Your task to perform on an android device: snooze an email in the gmail app Image 0: 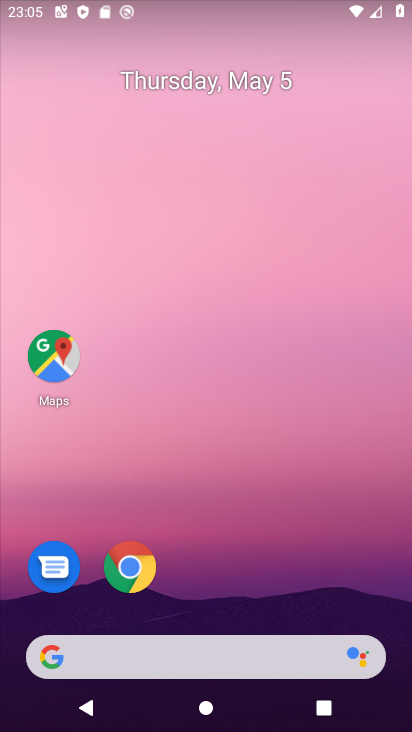
Step 0: drag from (182, 566) to (165, 187)
Your task to perform on an android device: snooze an email in the gmail app Image 1: 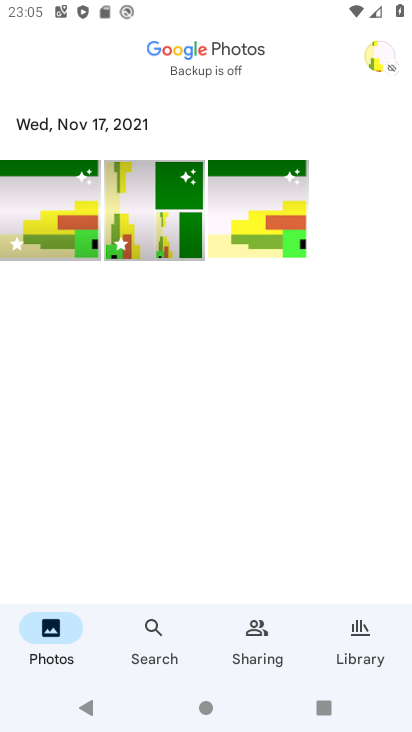
Step 1: press home button
Your task to perform on an android device: snooze an email in the gmail app Image 2: 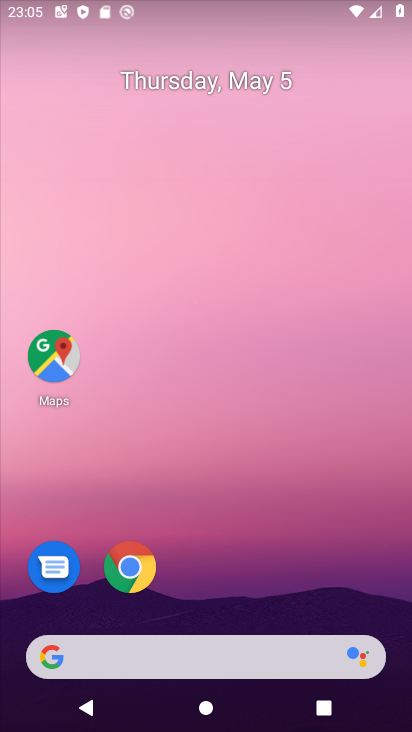
Step 2: drag from (216, 606) to (215, 172)
Your task to perform on an android device: snooze an email in the gmail app Image 3: 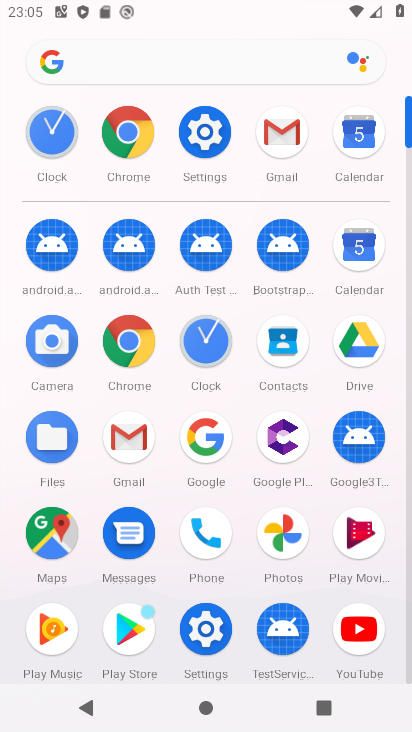
Step 3: click (264, 129)
Your task to perform on an android device: snooze an email in the gmail app Image 4: 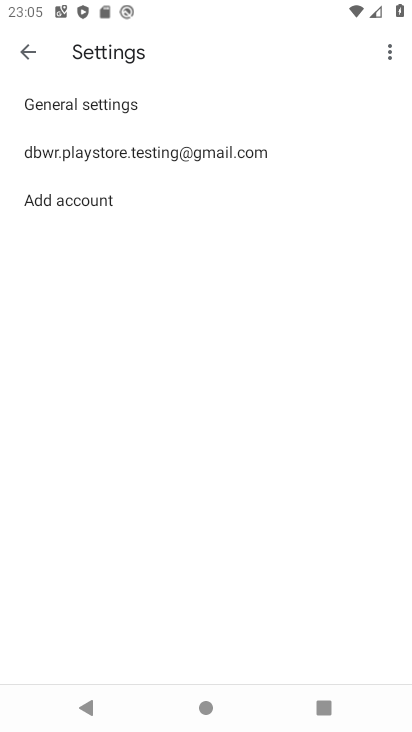
Step 4: click (58, 150)
Your task to perform on an android device: snooze an email in the gmail app Image 5: 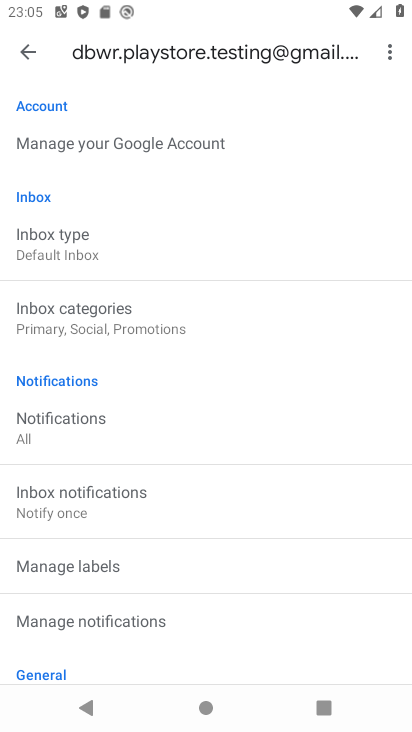
Step 5: click (23, 40)
Your task to perform on an android device: snooze an email in the gmail app Image 6: 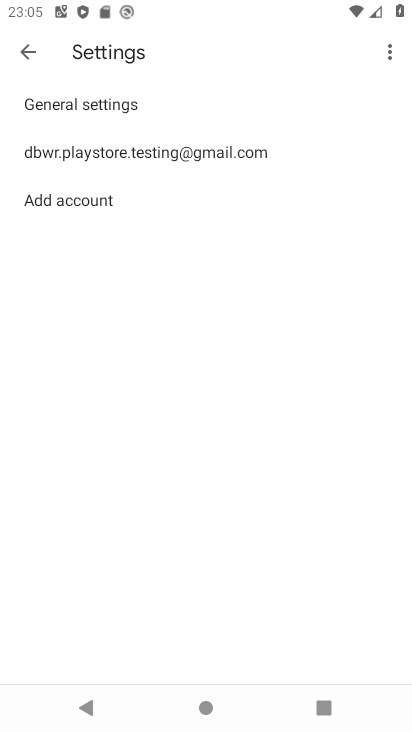
Step 6: click (23, 40)
Your task to perform on an android device: snooze an email in the gmail app Image 7: 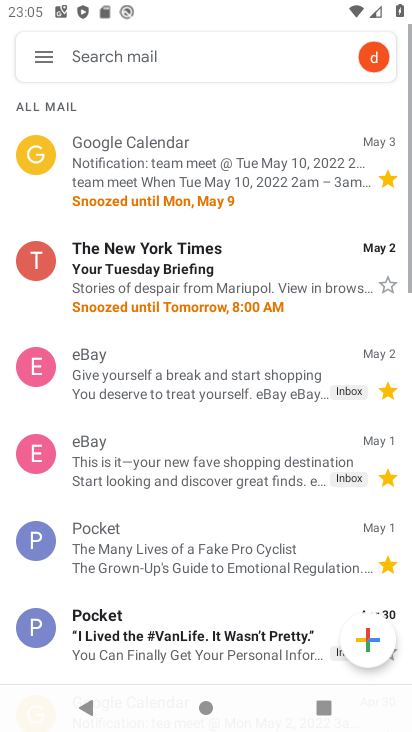
Step 7: click (157, 298)
Your task to perform on an android device: snooze an email in the gmail app Image 8: 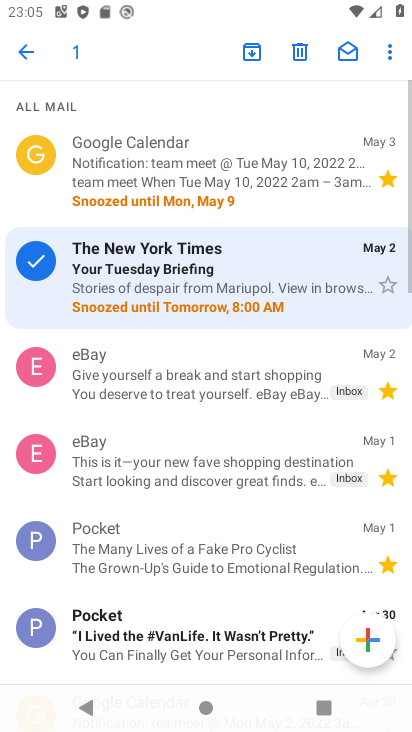
Step 8: click (155, 262)
Your task to perform on an android device: snooze an email in the gmail app Image 9: 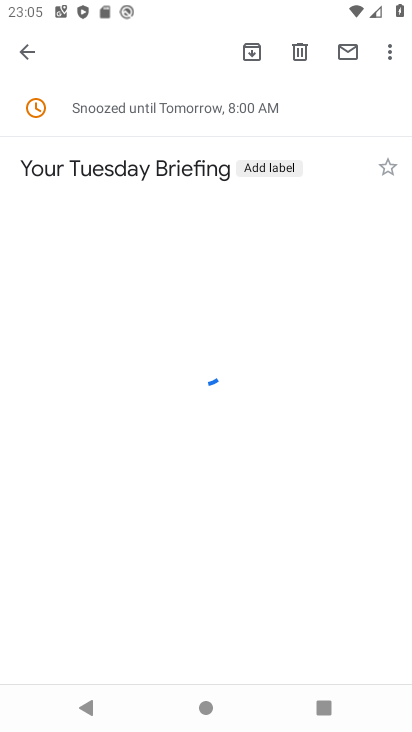
Step 9: click (393, 53)
Your task to perform on an android device: snooze an email in the gmail app Image 10: 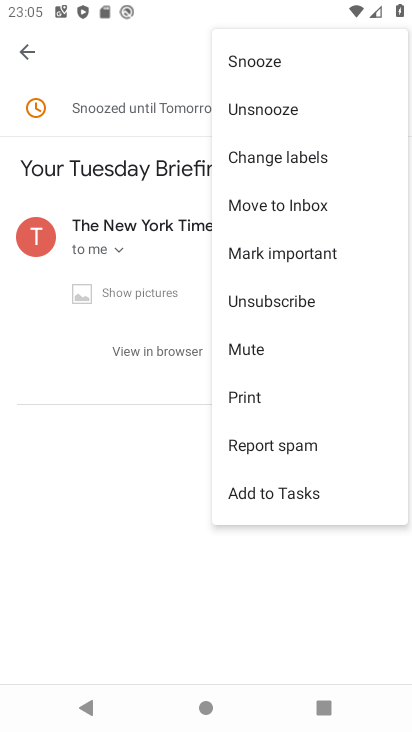
Step 10: click (259, 65)
Your task to perform on an android device: snooze an email in the gmail app Image 11: 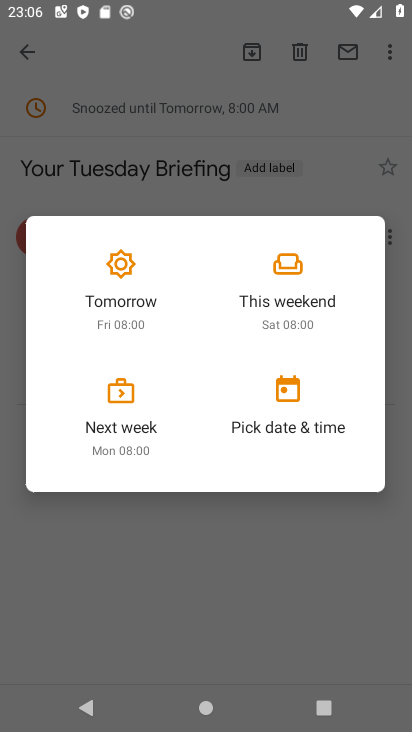
Step 11: click (143, 391)
Your task to perform on an android device: snooze an email in the gmail app Image 12: 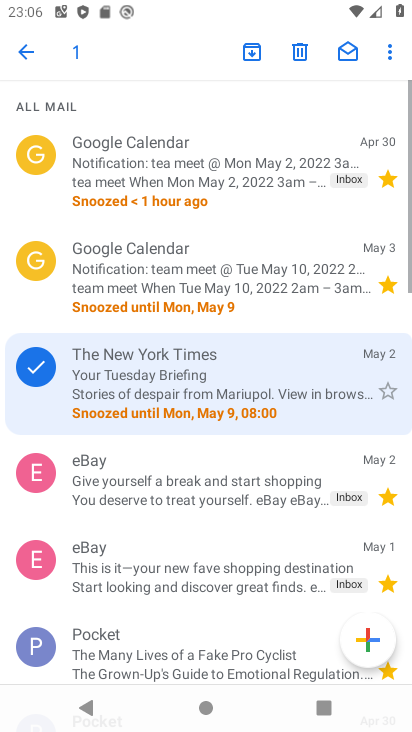
Step 12: task complete